Your task to perform on an android device: turn on improve location accuracy Image 0: 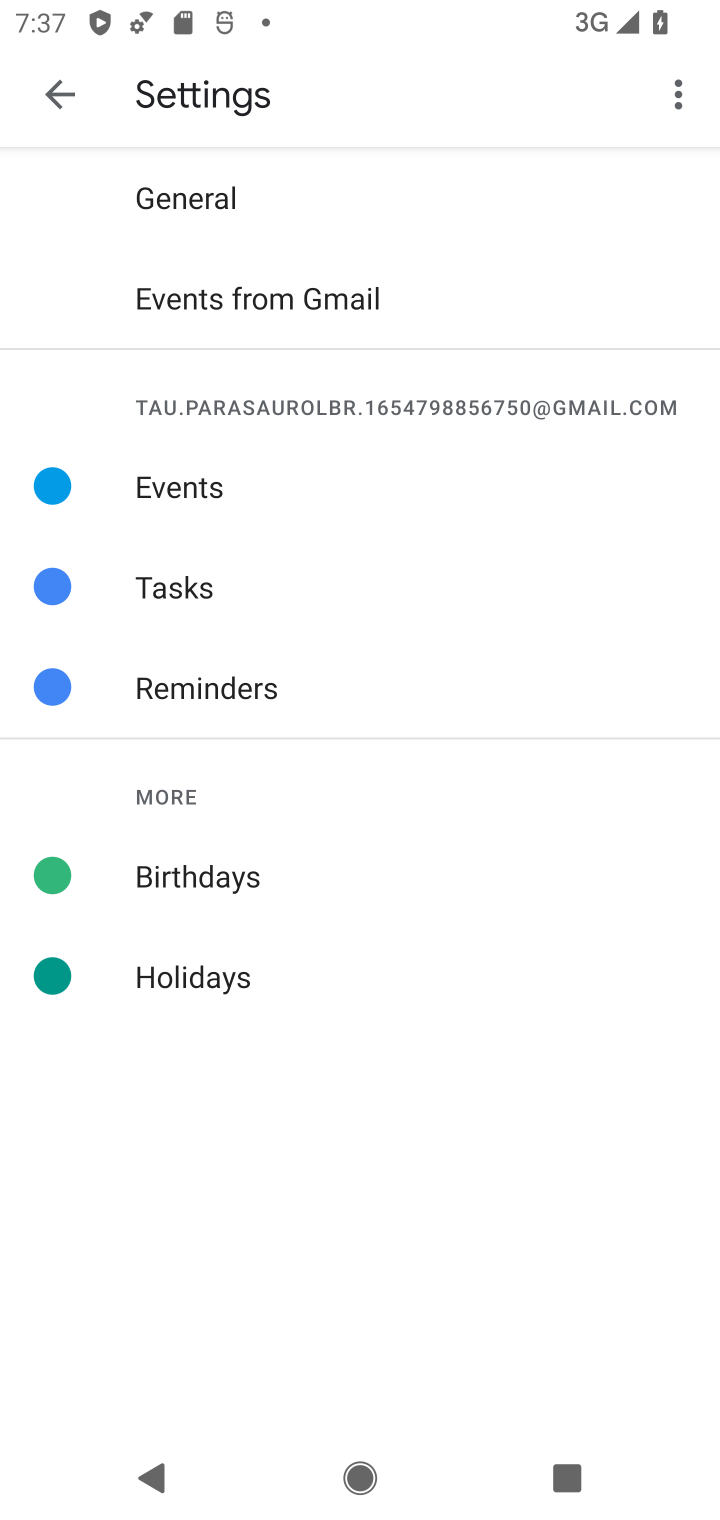
Step 0: press home button
Your task to perform on an android device: turn on improve location accuracy Image 1: 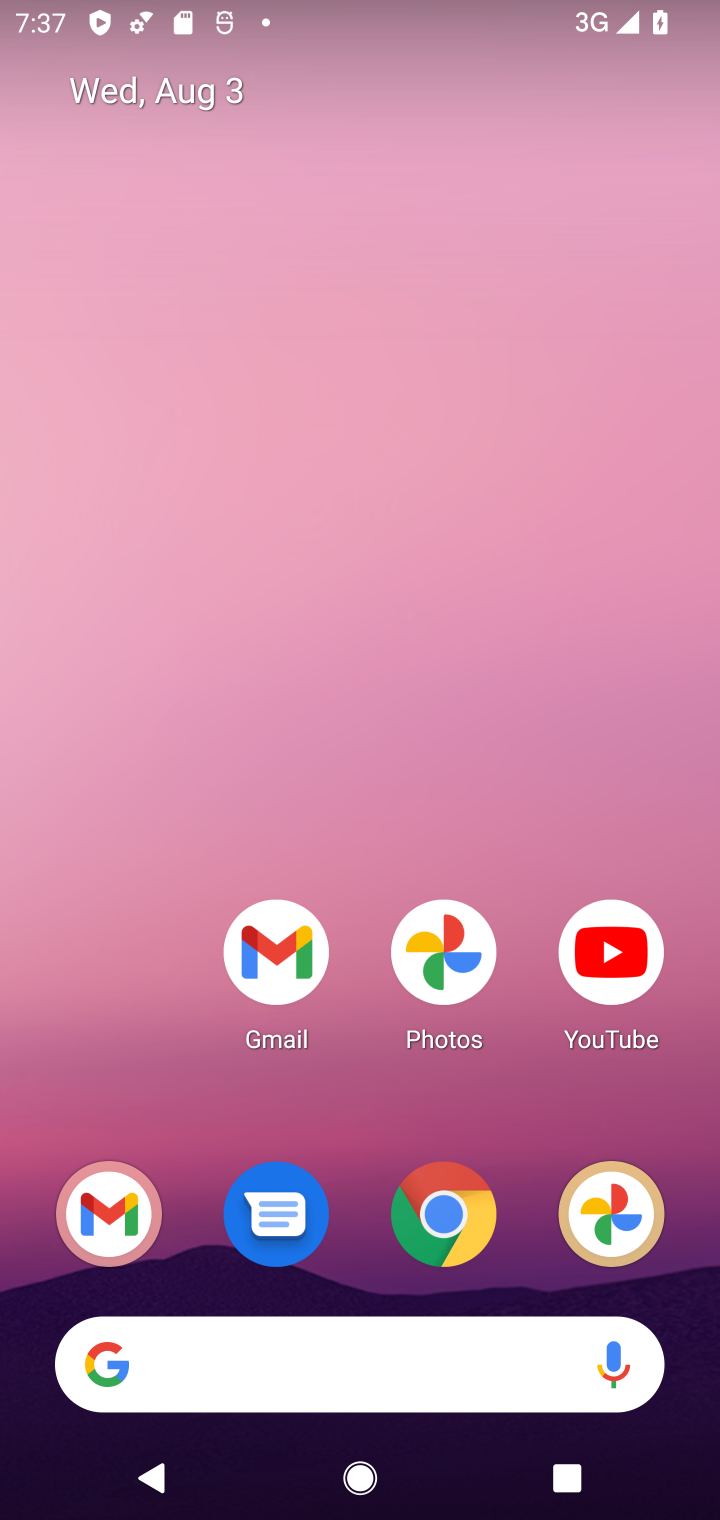
Step 1: drag from (186, 708) to (396, 15)
Your task to perform on an android device: turn on improve location accuracy Image 2: 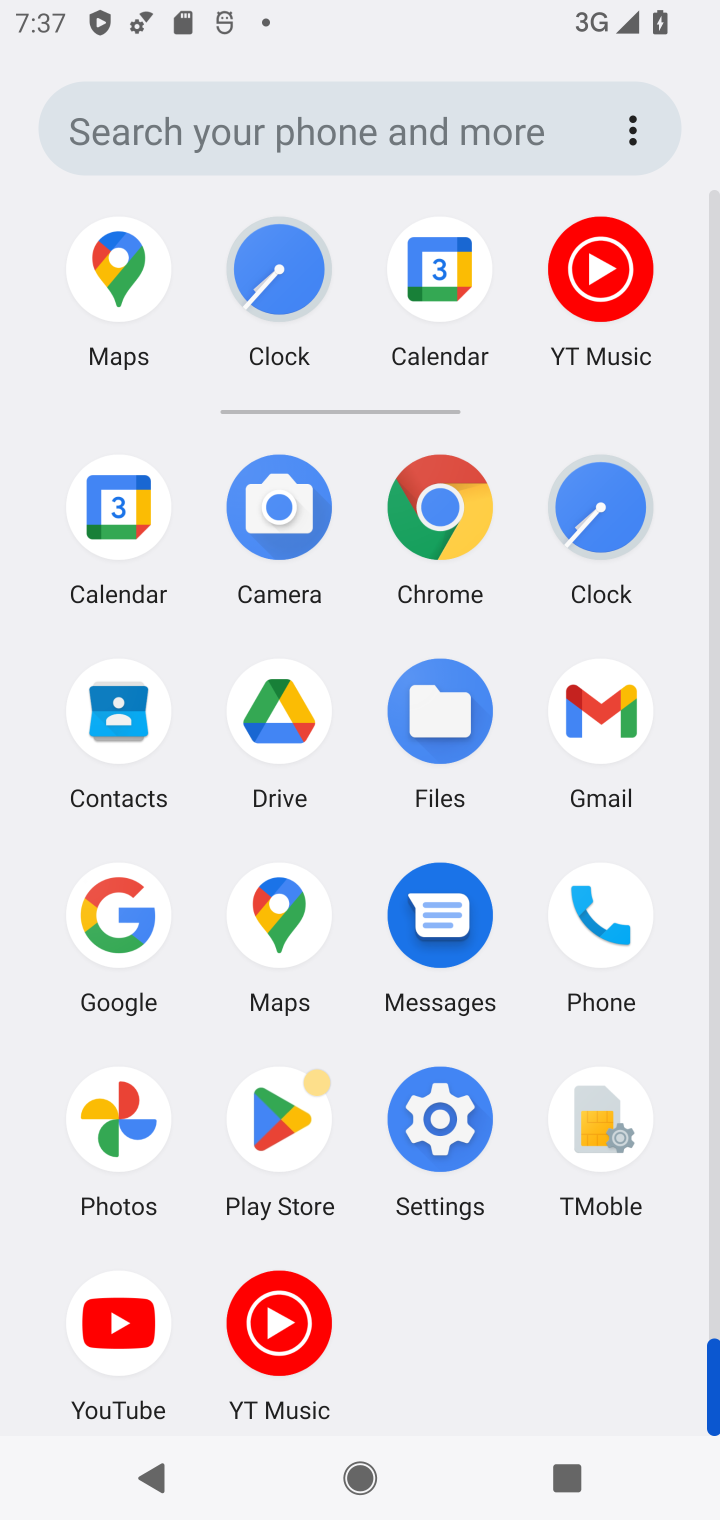
Step 2: click (442, 1144)
Your task to perform on an android device: turn on improve location accuracy Image 3: 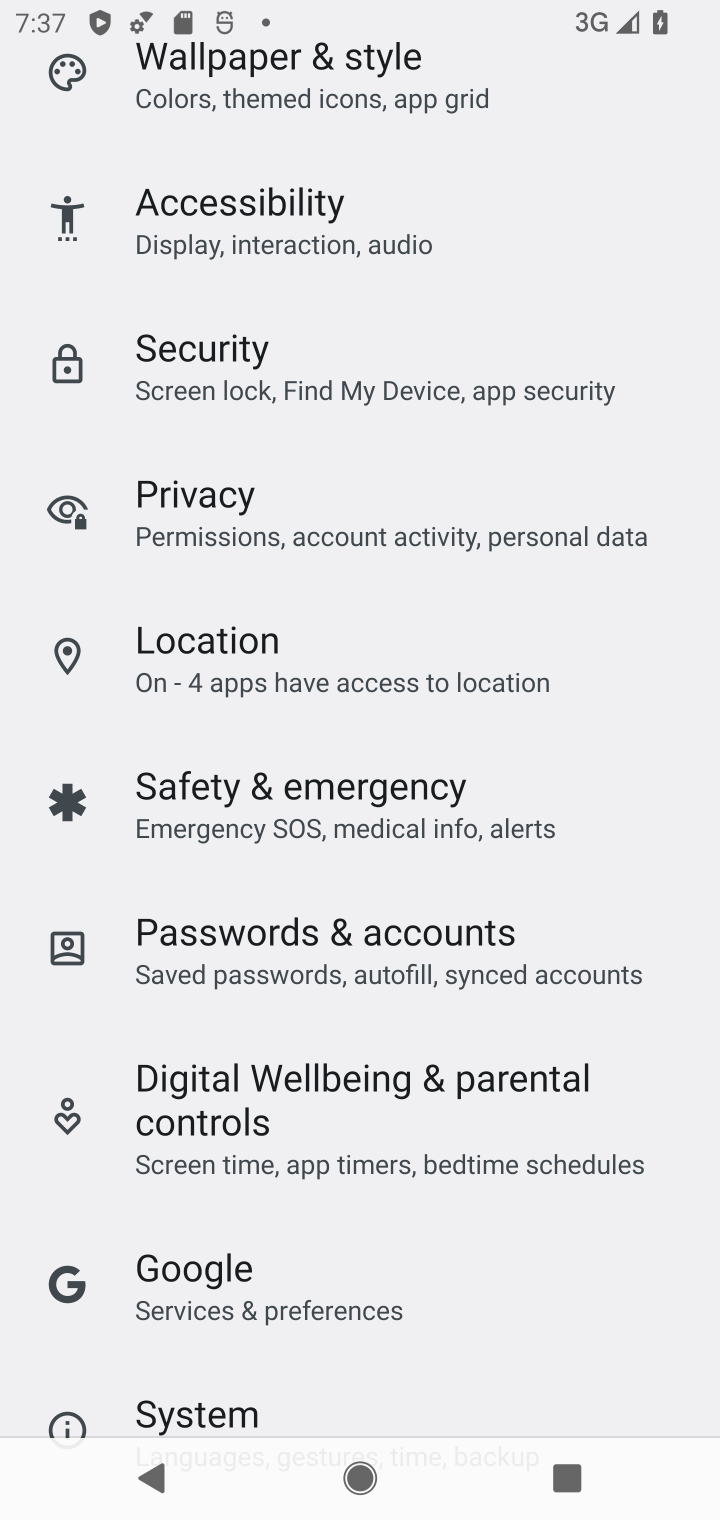
Step 3: drag from (366, 276) to (225, 1242)
Your task to perform on an android device: turn on improve location accuracy Image 4: 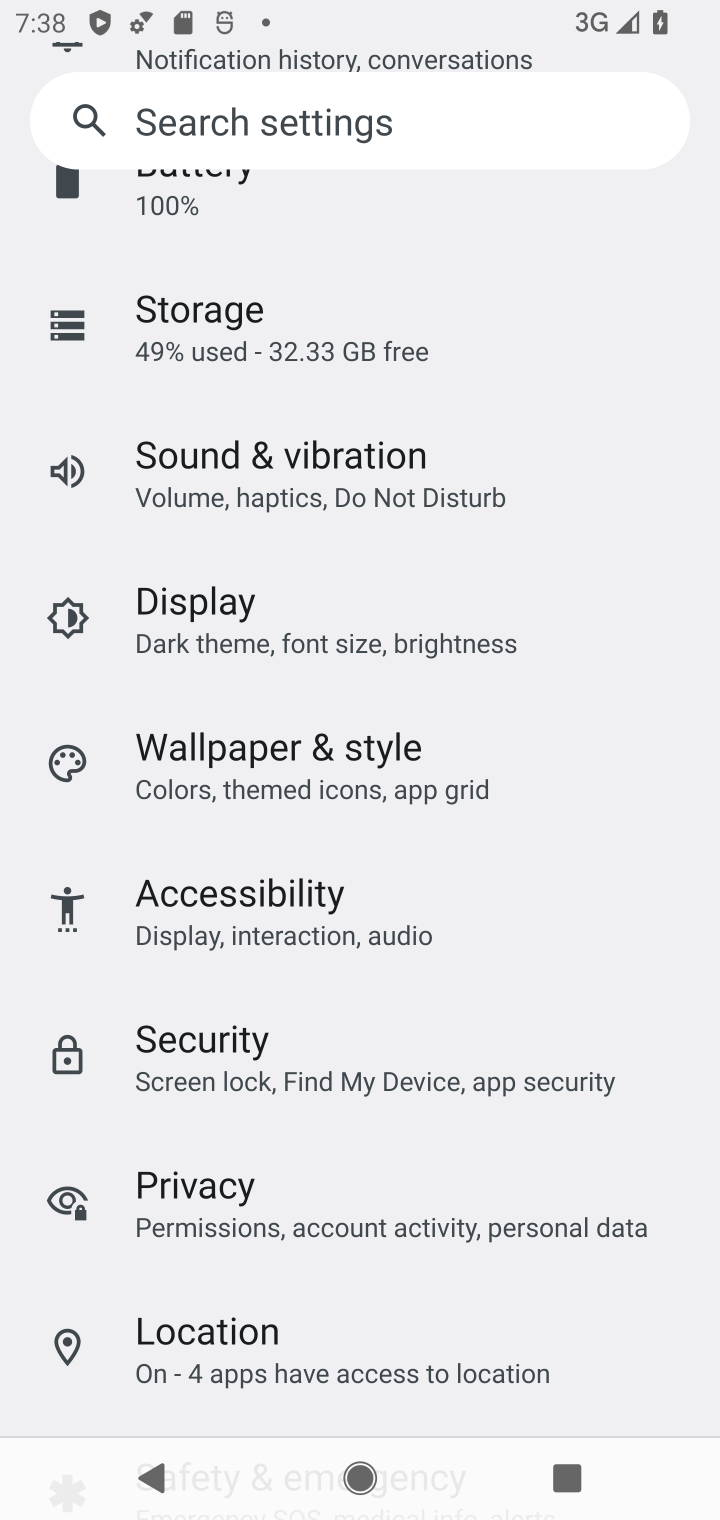
Step 4: click (202, 1344)
Your task to perform on an android device: turn on improve location accuracy Image 5: 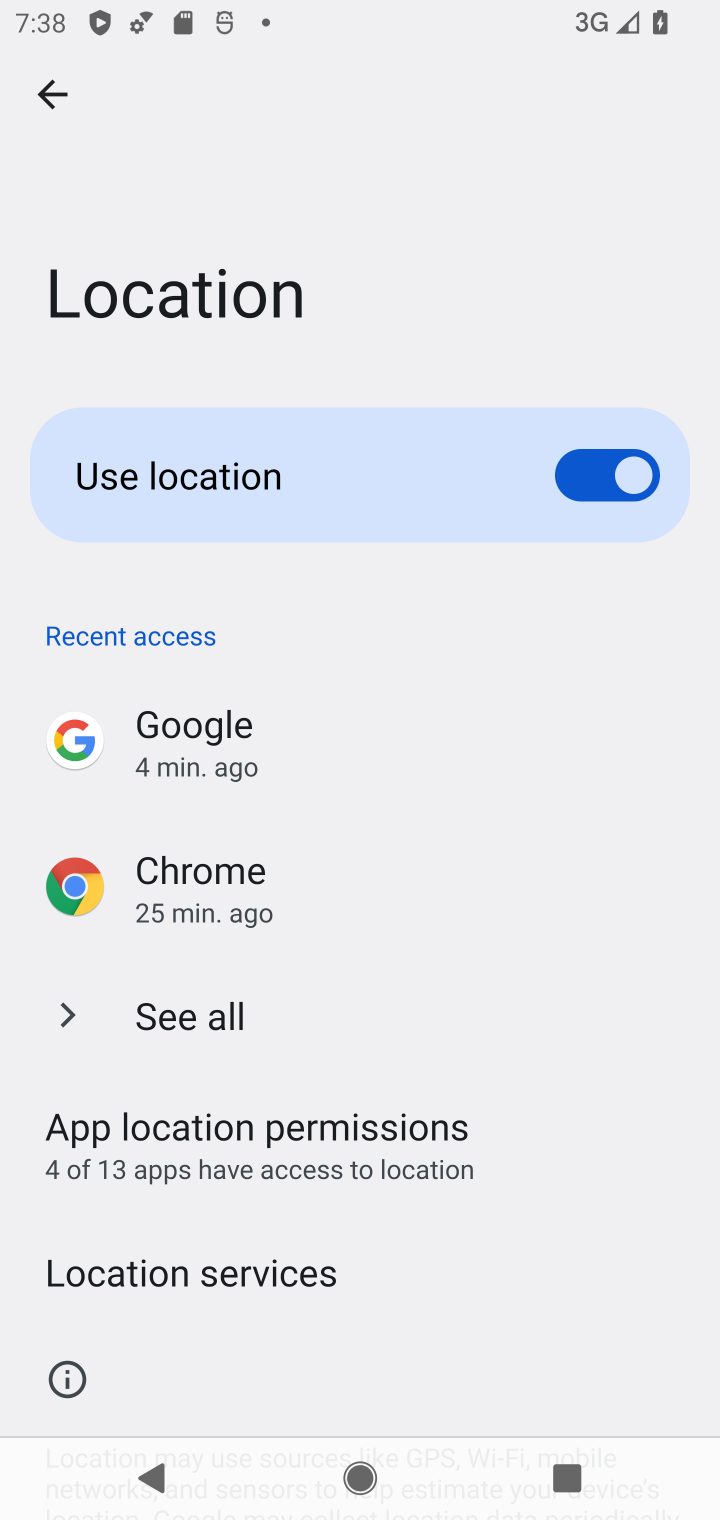
Step 5: task complete